Your task to perform on an android device: Show me popular games on the Play Store Image 0: 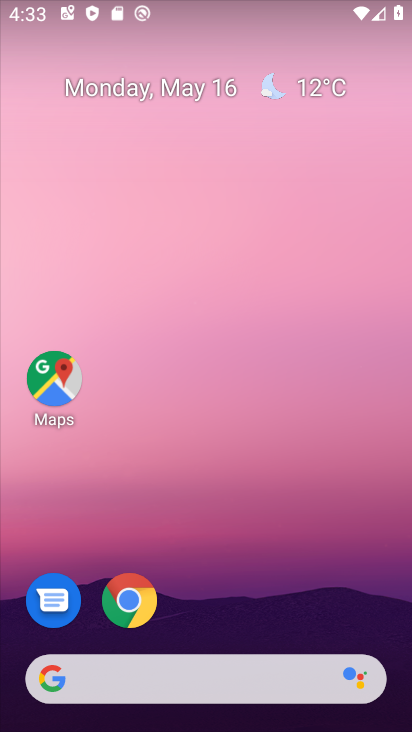
Step 0: drag from (209, 649) to (241, 281)
Your task to perform on an android device: Show me popular games on the Play Store Image 1: 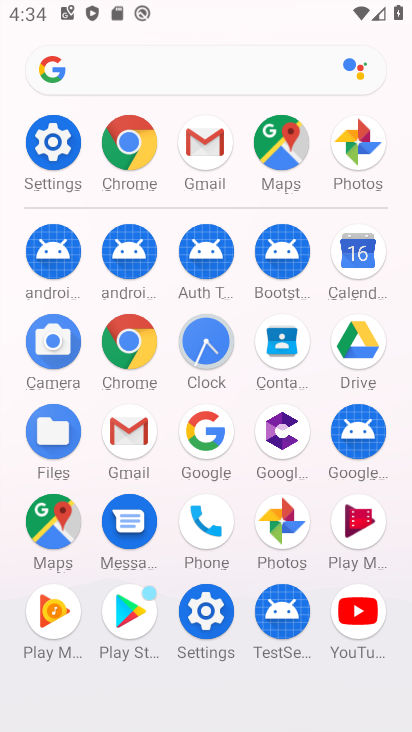
Step 1: click (125, 617)
Your task to perform on an android device: Show me popular games on the Play Store Image 2: 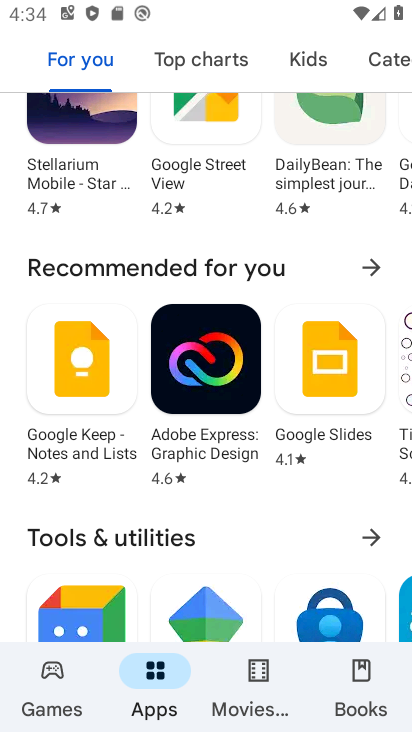
Step 2: drag from (271, 122) to (175, 560)
Your task to perform on an android device: Show me popular games on the Play Store Image 3: 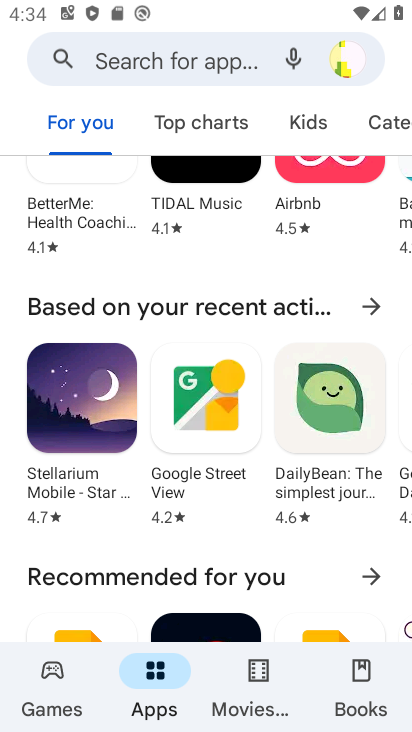
Step 3: click (188, 60)
Your task to perform on an android device: Show me popular games on the Play Store Image 4: 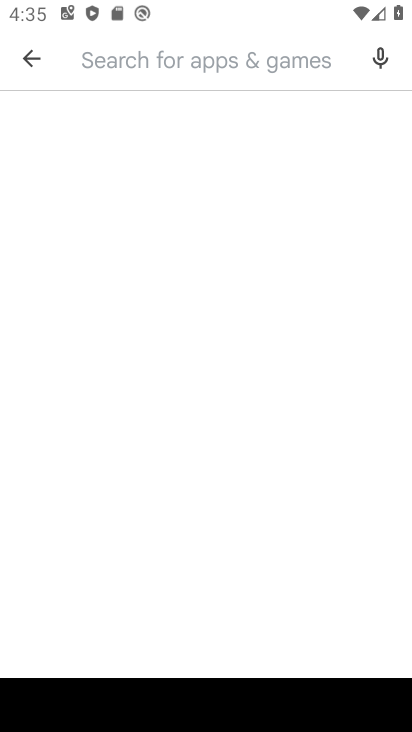
Step 4: type "popular games"
Your task to perform on an android device: Show me popular games on the Play Store Image 5: 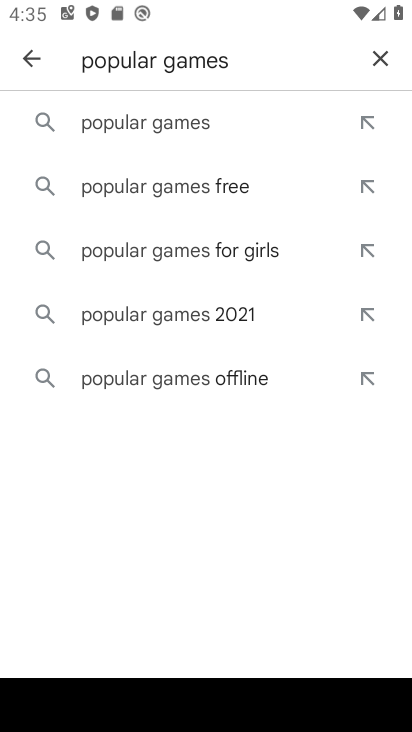
Step 5: click (199, 110)
Your task to perform on an android device: Show me popular games on the Play Store Image 6: 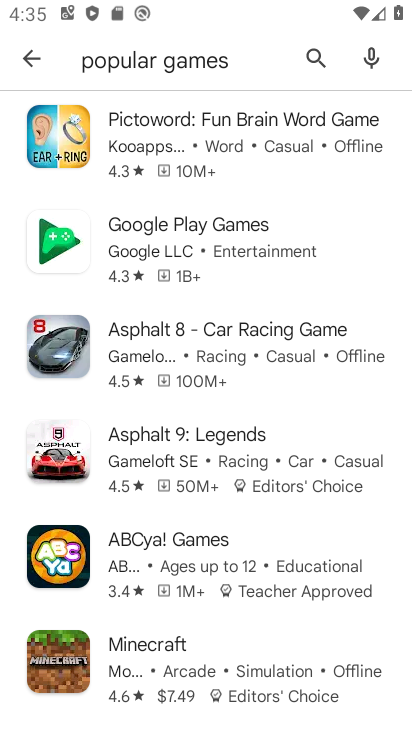
Step 6: task complete